Your task to perform on an android device: Open wifi settings Image 0: 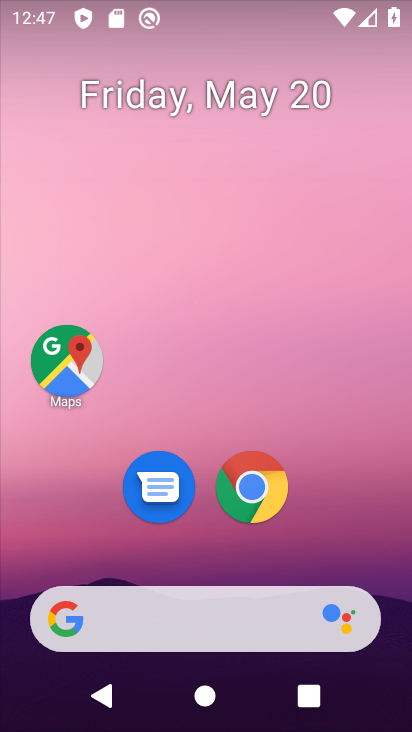
Step 0: drag from (349, 530) to (317, 134)
Your task to perform on an android device: Open wifi settings Image 1: 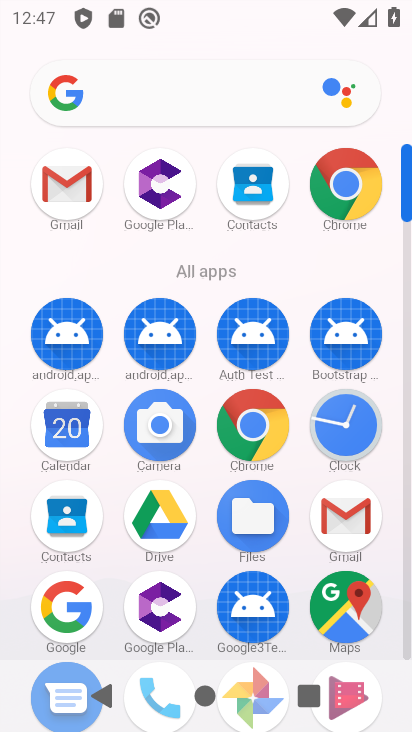
Step 1: drag from (211, 557) to (230, 136)
Your task to perform on an android device: Open wifi settings Image 2: 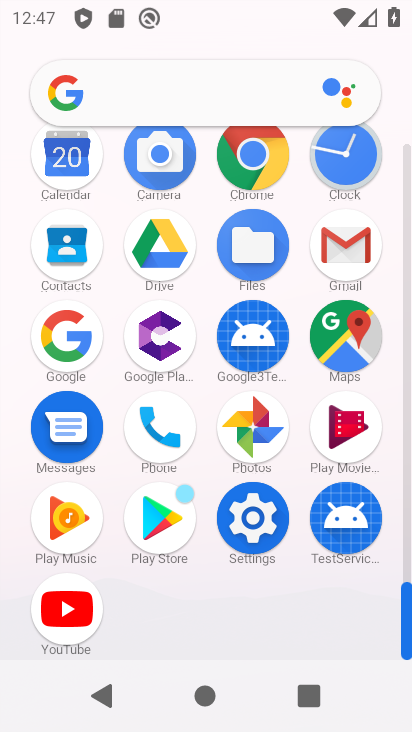
Step 2: click (259, 540)
Your task to perform on an android device: Open wifi settings Image 3: 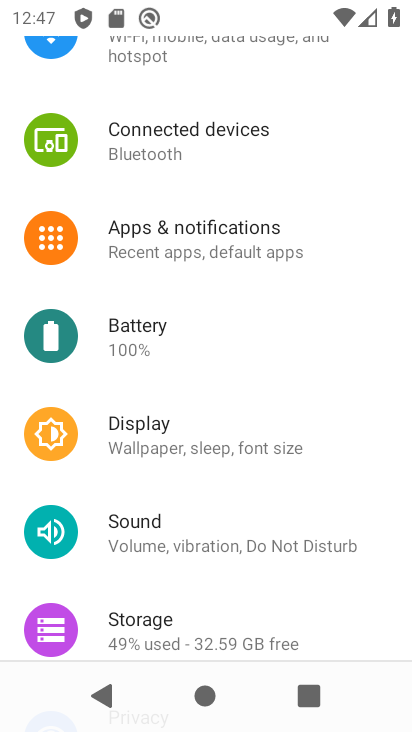
Step 3: drag from (257, 164) to (214, 636)
Your task to perform on an android device: Open wifi settings Image 4: 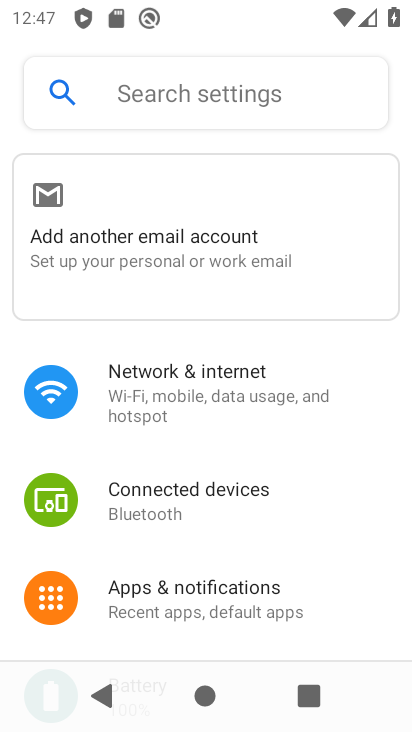
Step 4: click (196, 371)
Your task to perform on an android device: Open wifi settings Image 5: 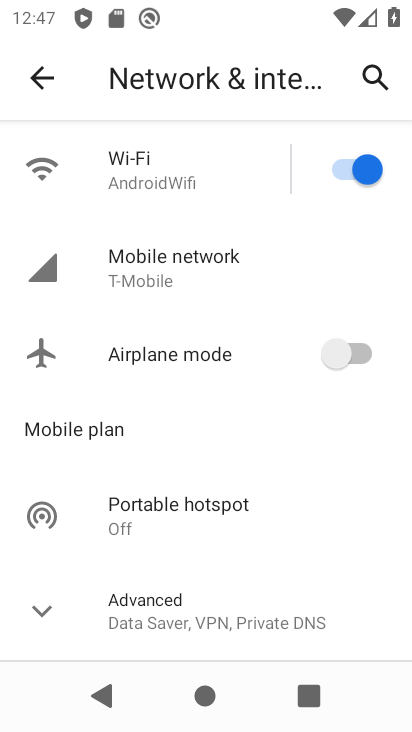
Step 5: click (204, 201)
Your task to perform on an android device: Open wifi settings Image 6: 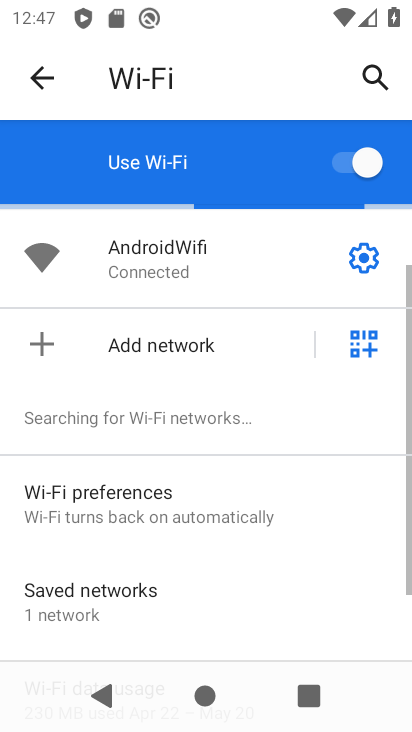
Step 6: click (360, 257)
Your task to perform on an android device: Open wifi settings Image 7: 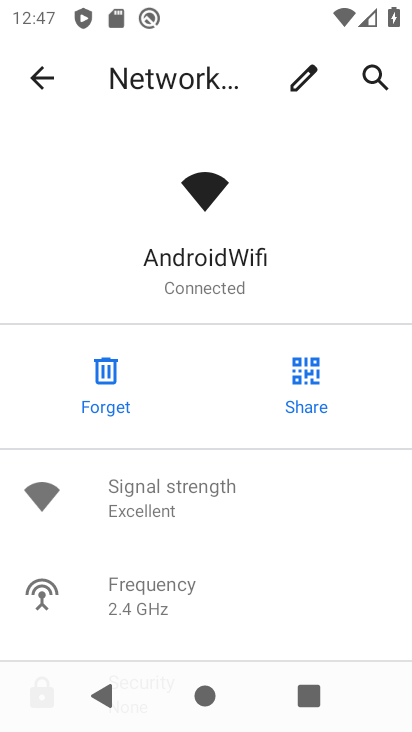
Step 7: task complete